Your task to perform on an android device: Clear the cart on costco.com. Add razer blade to the cart on costco.com, then select checkout. Image 0: 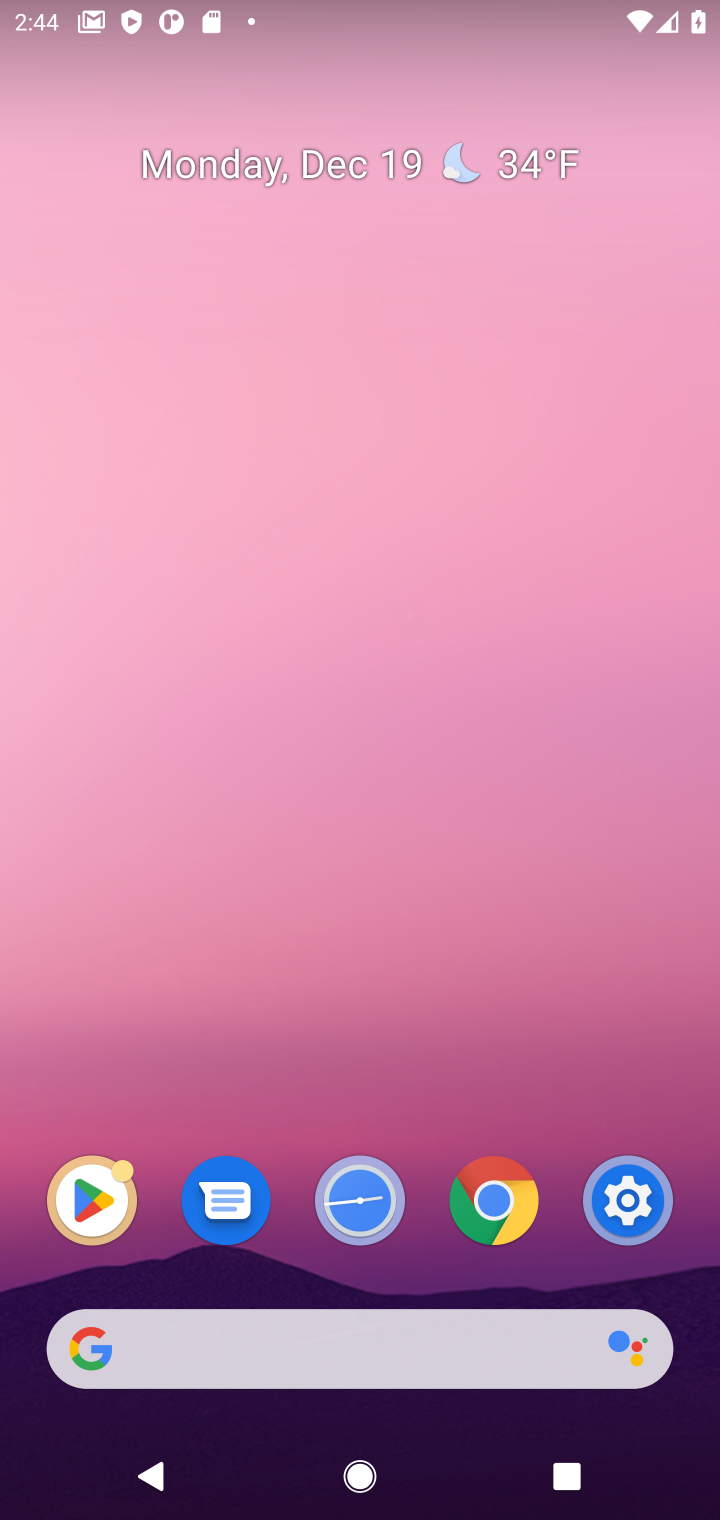
Step 0: click (496, 1185)
Your task to perform on an android device: Clear the cart on costco.com. Add razer blade to the cart on costco.com, then select checkout. Image 1: 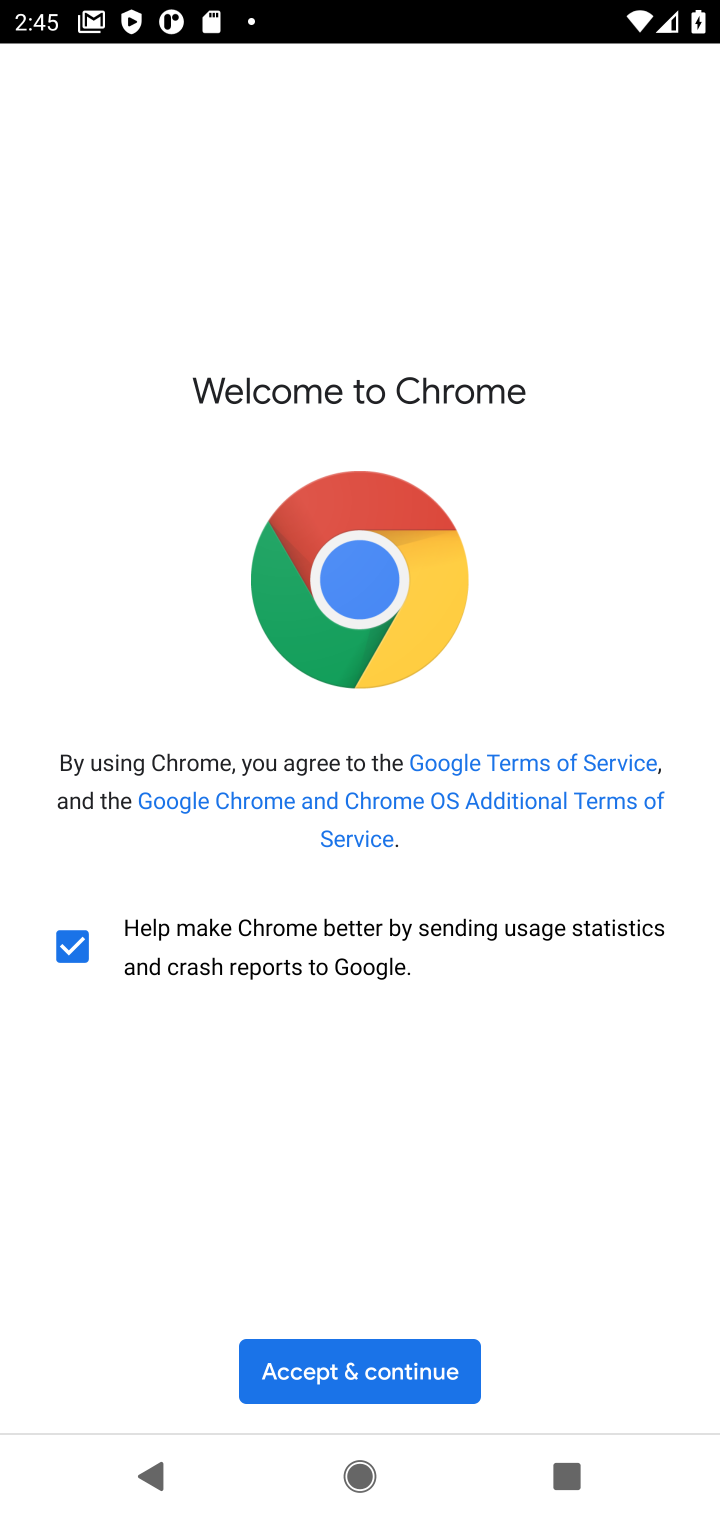
Step 1: click (406, 1385)
Your task to perform on an android device: Clear the cart on costco.com. Add razer blade to the cart on costco.com, then select checkout. Image 2: 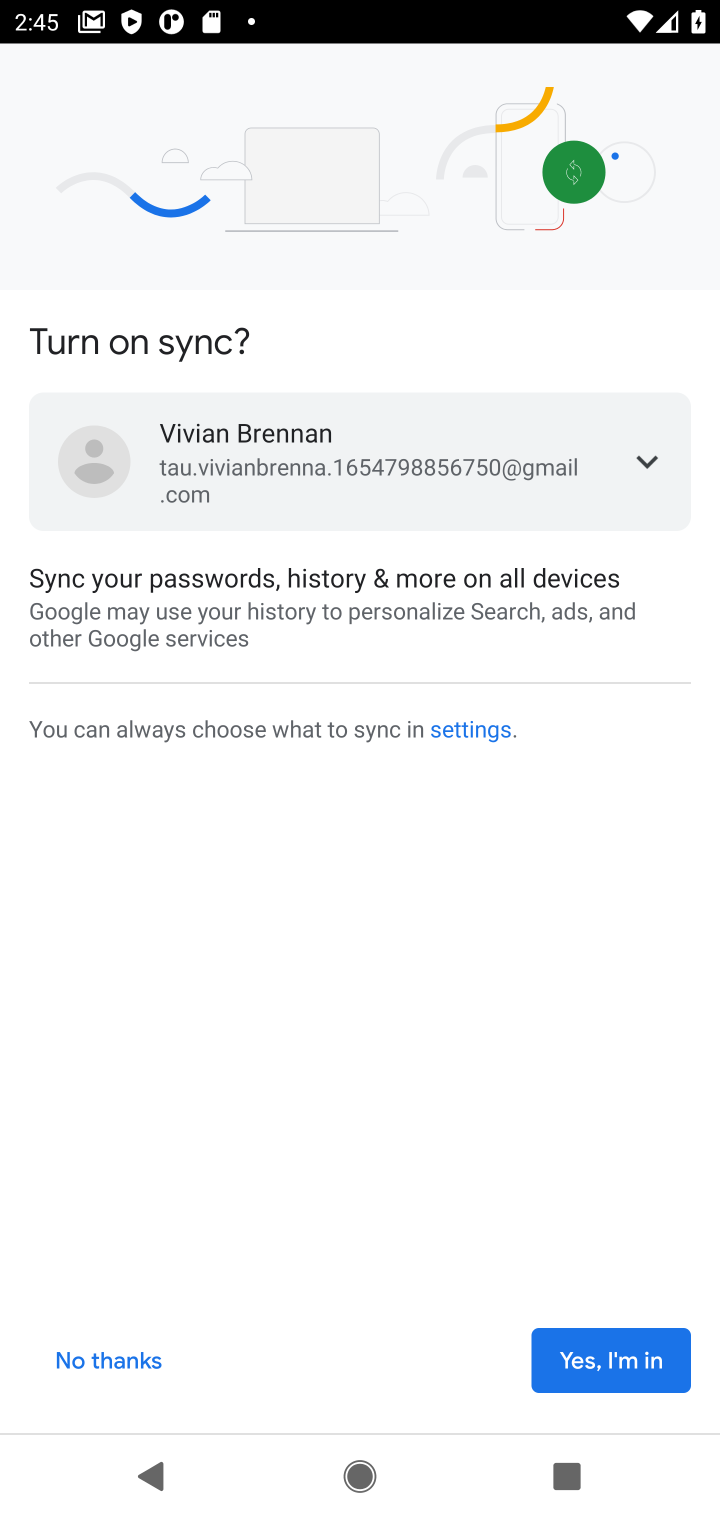
Step 2: click (640, 1373)
Your task to perform on an android device: Clear the cart on costco.com. Add razer blade to the cart on costco.com, then select checkout. Image 3: 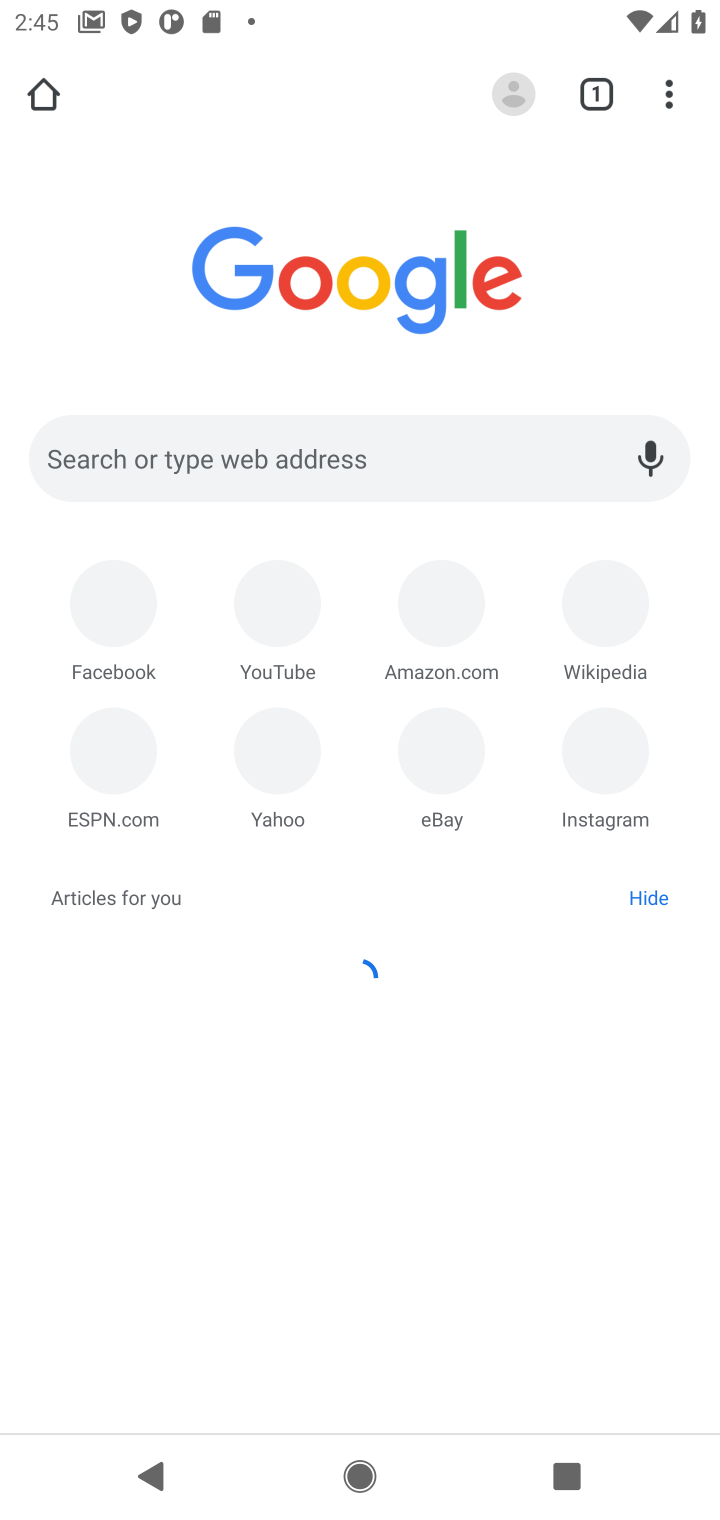
Step 3: click (334, 448)
Your task to perform on an android device: Clear the cart on costco.com. Add razer blade to the cart on costco.com, then select checkout. Image 4: 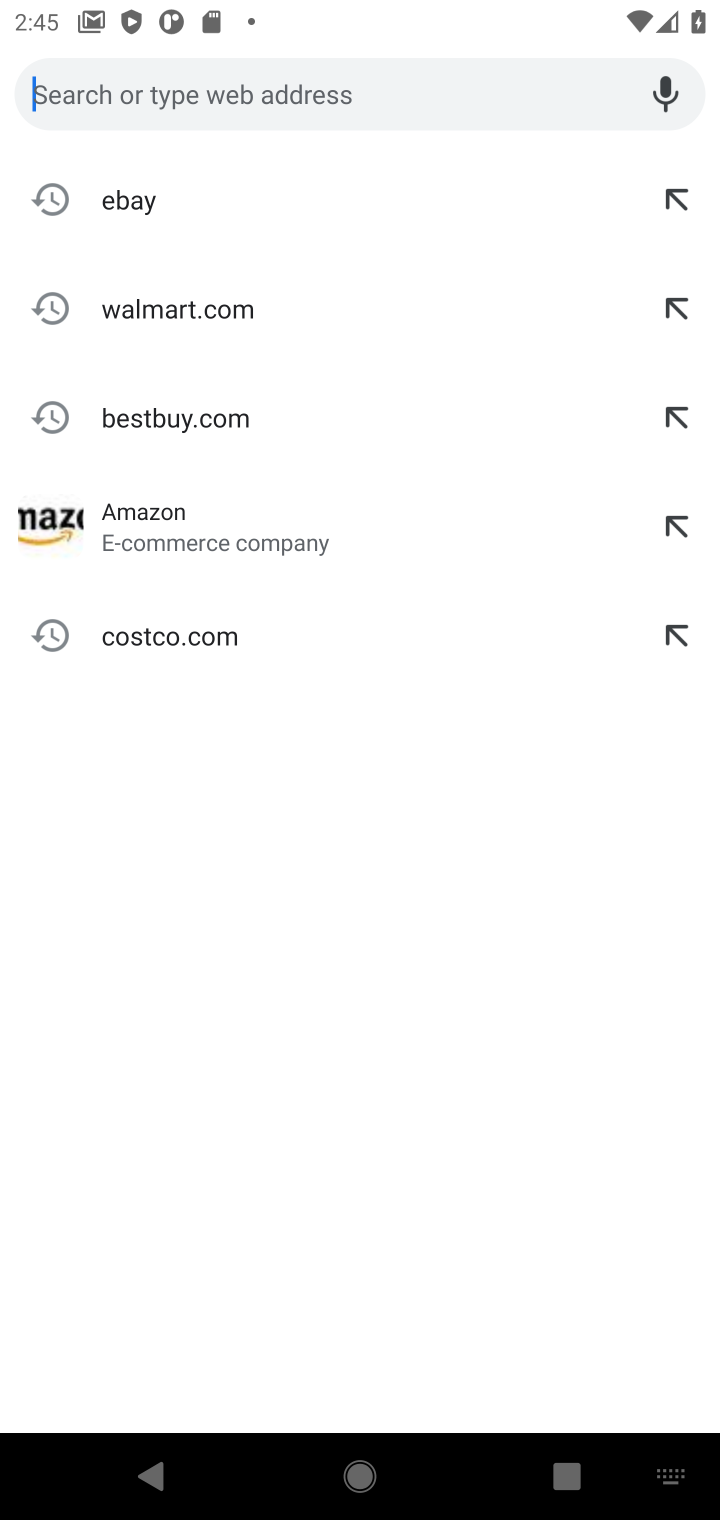
Step 4: click (249, 650)
Your task to perform on an android device: Clear the cart on costco.com. Add razer blade to the cart on costco.com, then select checkout. Image 5: 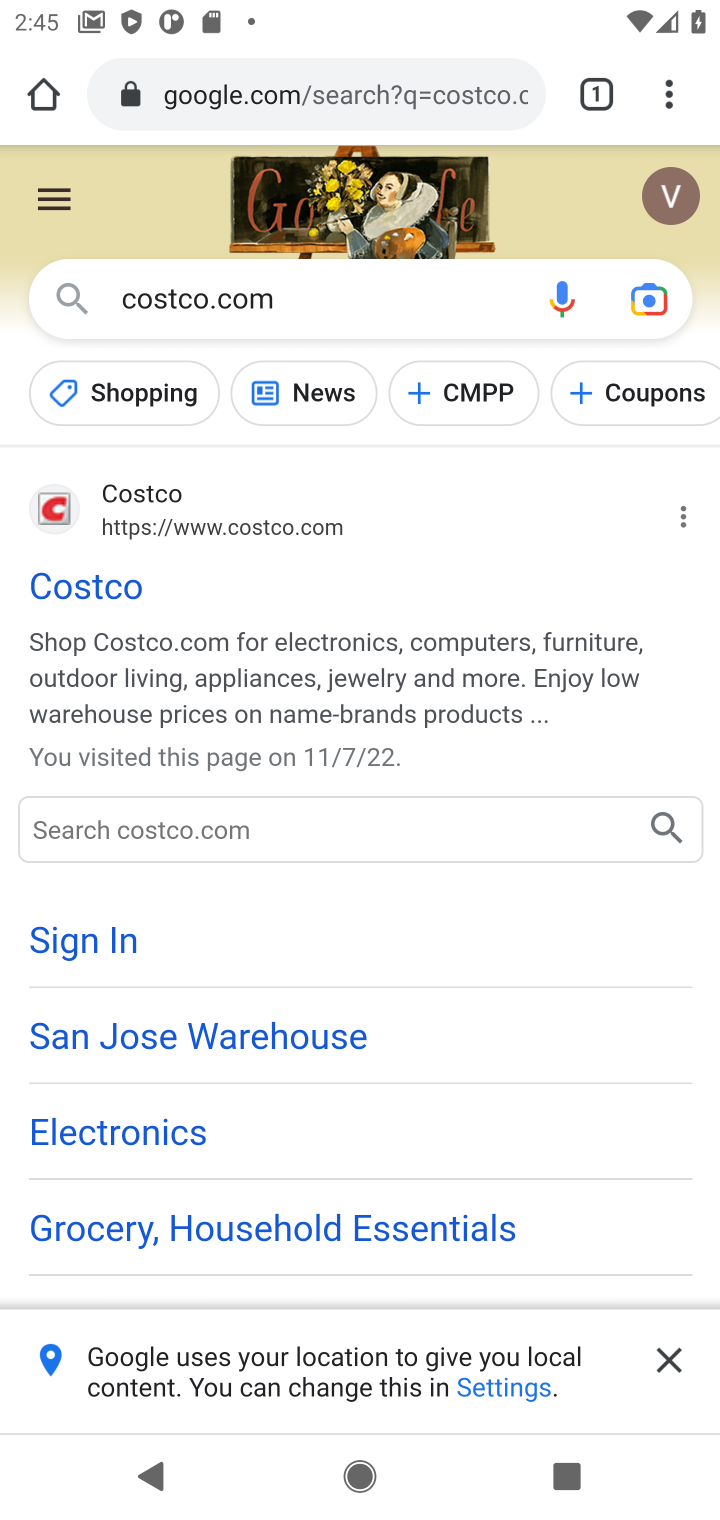
Step 5: type "razer blade"
Your task to perform on an android device: Clear the cart on costco.com. Add razer blade to the cart on costco.com, then select checkout. Image 6: 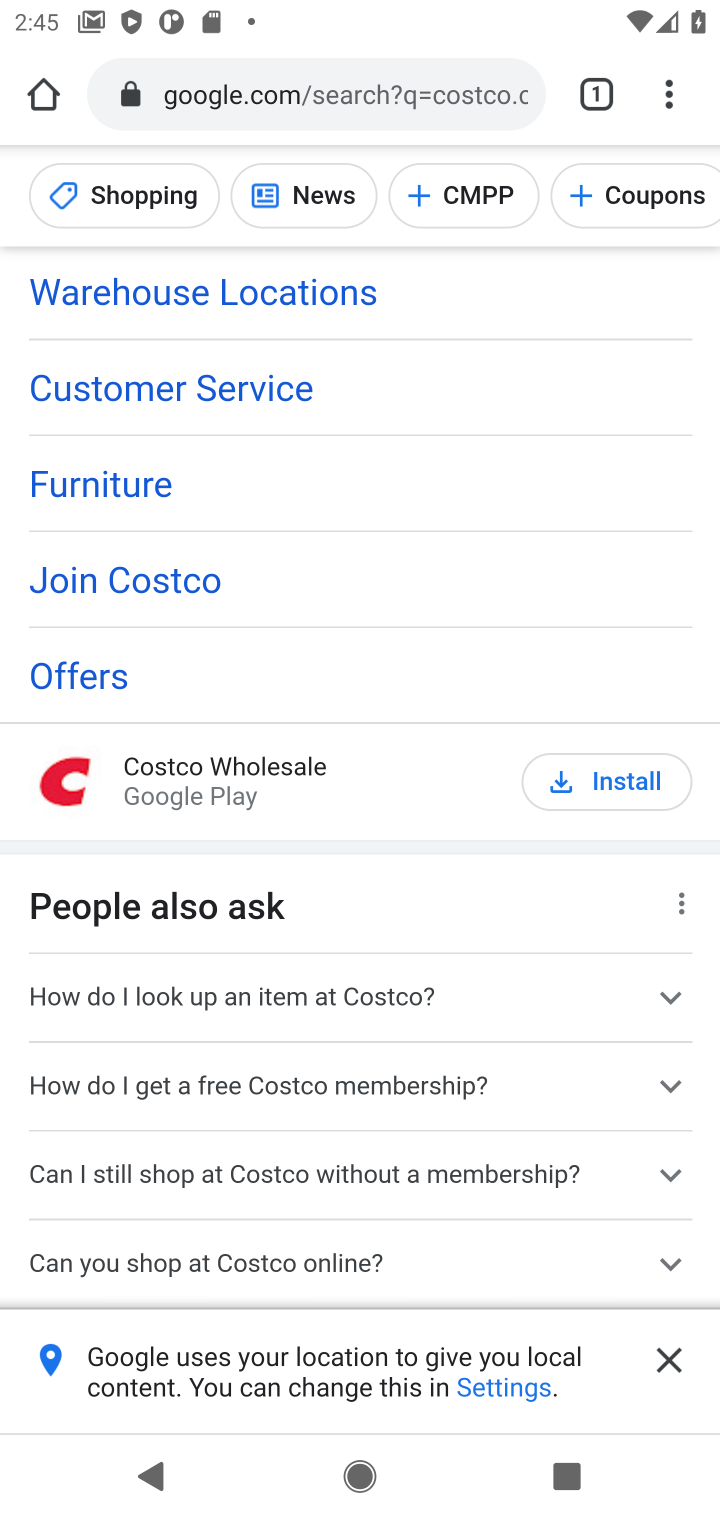
Step 6: click (153, 770)
Your task to perform on an android device: Clear the cart on costco.com. Add razer blade to the cart on costco.com, then select checkout. Image 7: 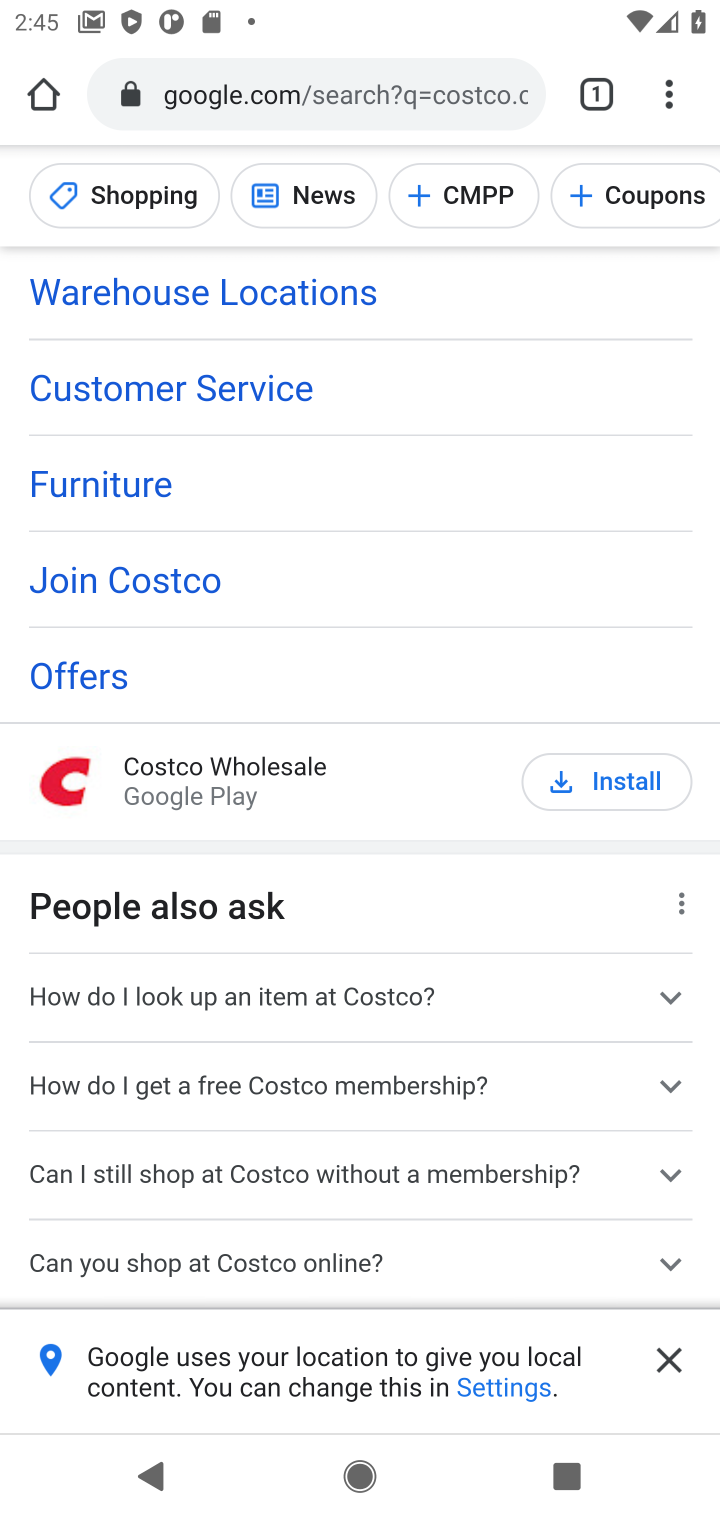
Step 7: drag from (433, 391) to (341, 1311)
Your task to perform on an android device: Clear the cart on costco.com. Add razer blade to the cart on costco.com, then select checkout. Image 8: 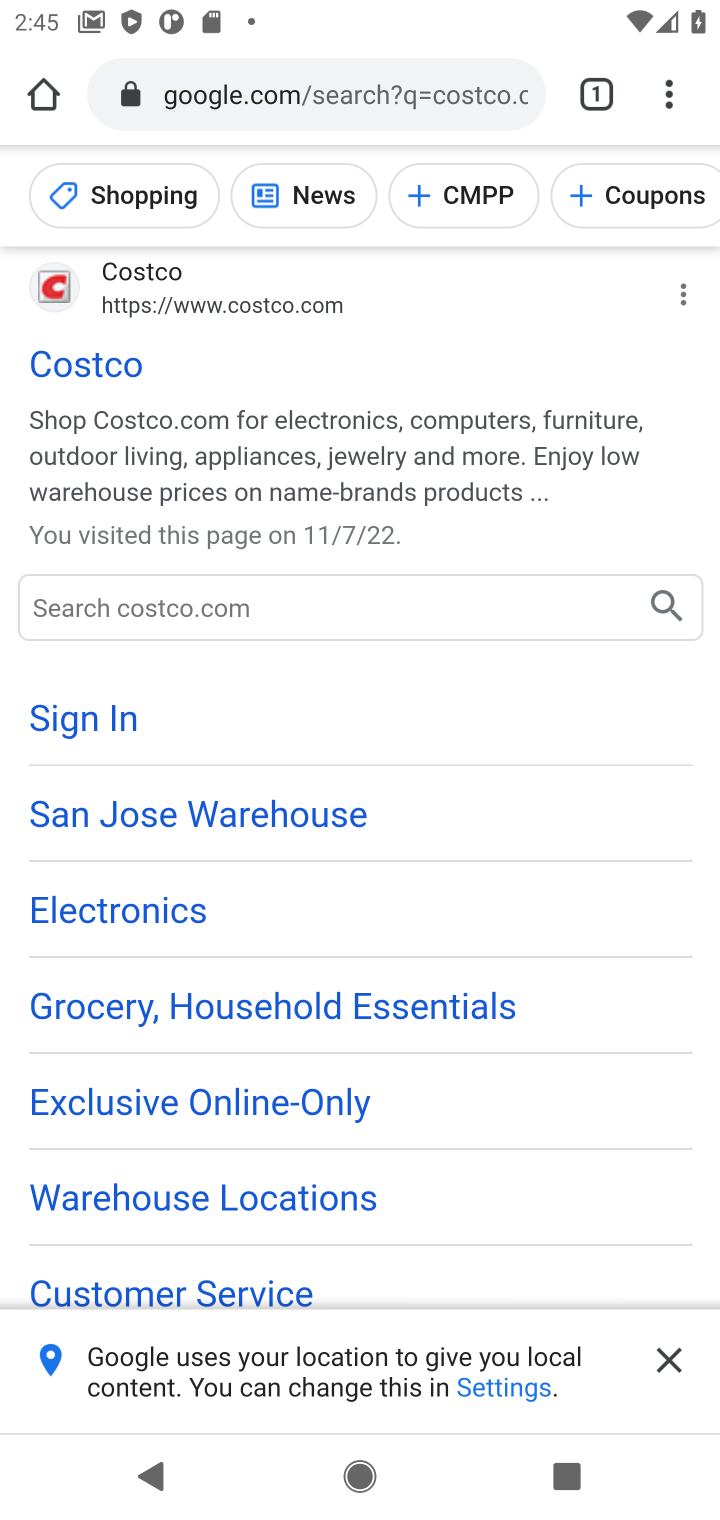
Step 8: click (97, 366)
Your task to perform on an android device: Clear the cart on costco.com. Add razer blade to the cart on costco.com, then select checkout. Image 9: 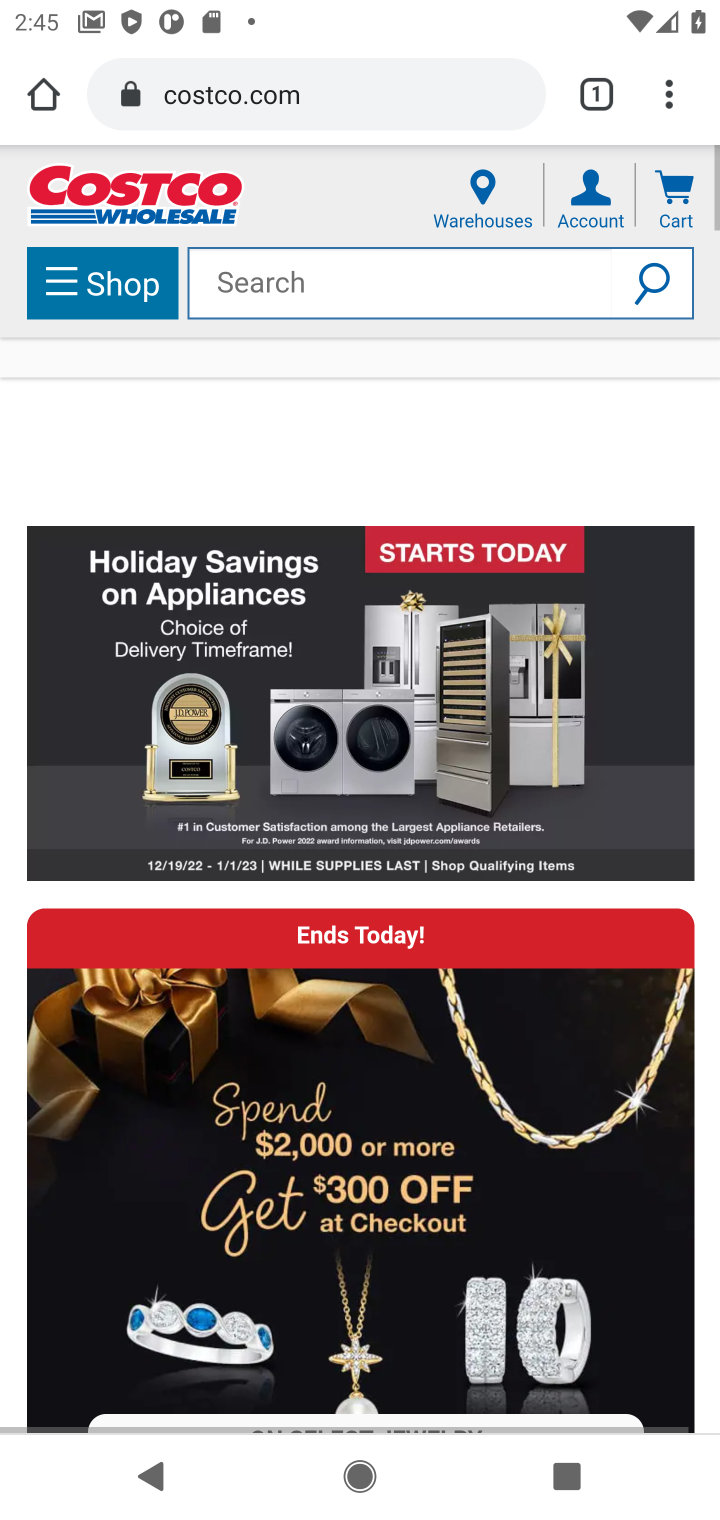
Step 9: click (518, 292)
Your task to perform on an android device: Clear the cart on costco.com. Add razer blade to the cart on costco.com, then select checkout. Image 10: 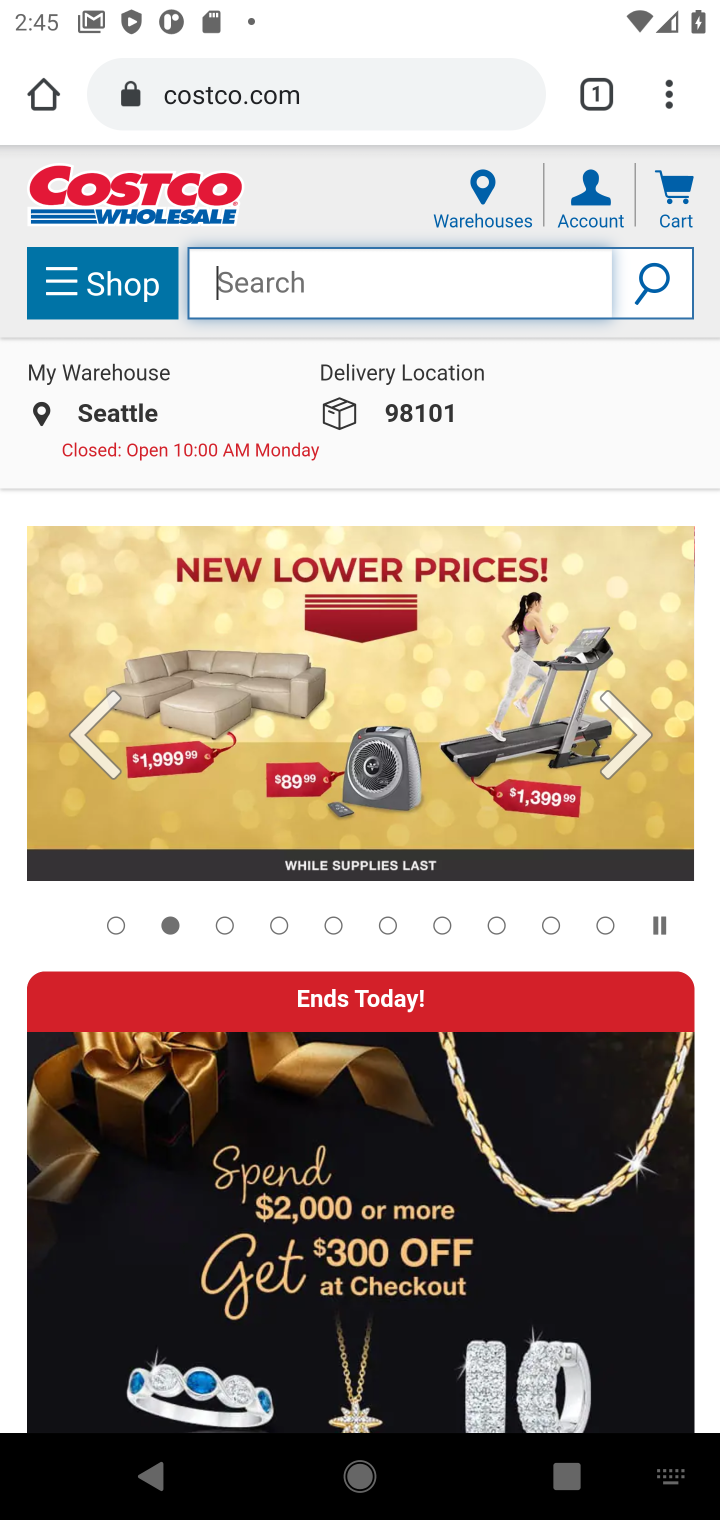
Step 10: type "razer blade"
Your task to perform on an android device: Clear the cart on costco.com. Add razer blade to the cart on costco.com, then select checkout. Image 11: 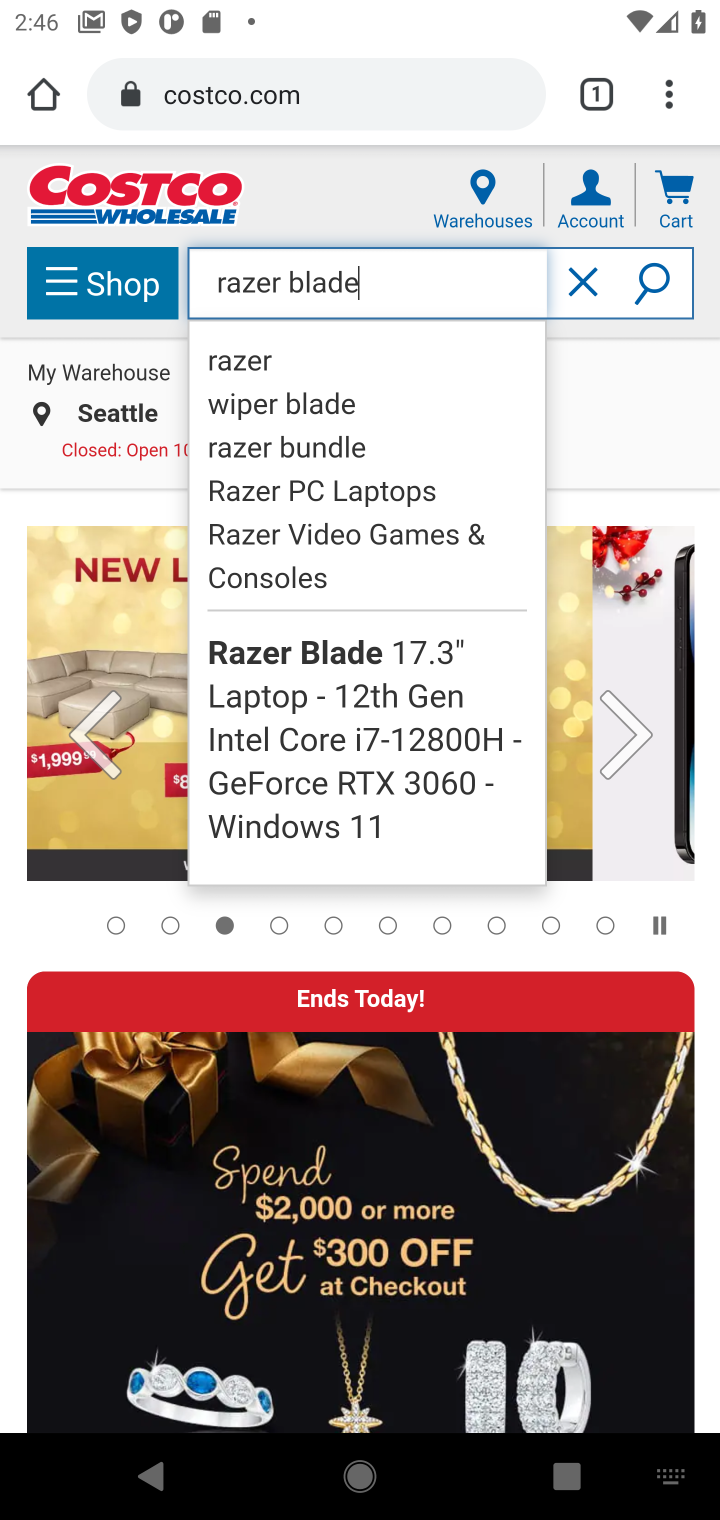
Step 11: click (271, 365)
Your task to perform on an android device: Clear the cart on costco.com. Add razer blade to the cart on costco.com, then select checkout. Image 12: 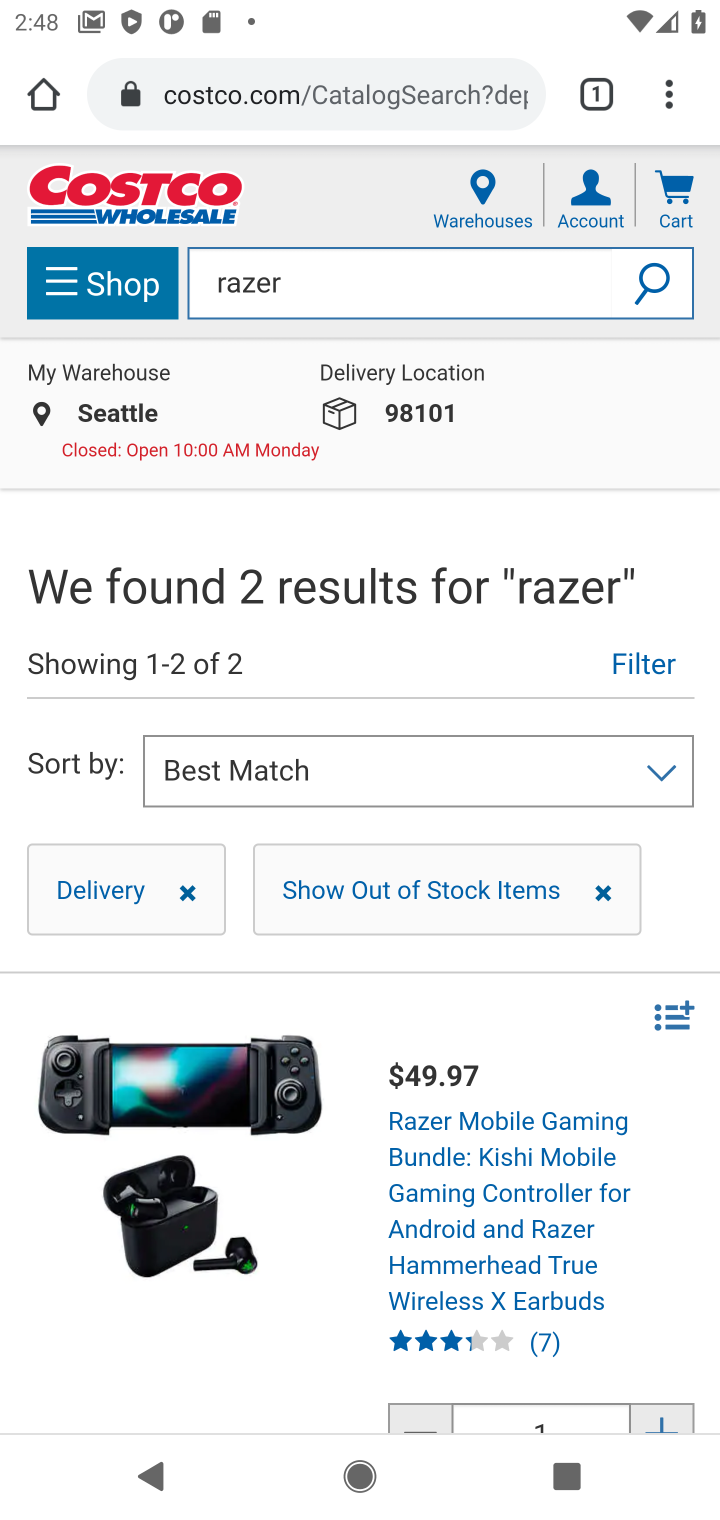
Step 12: task complete